Your task to perform on an android device: delete a single message in the gmail app Image 0: 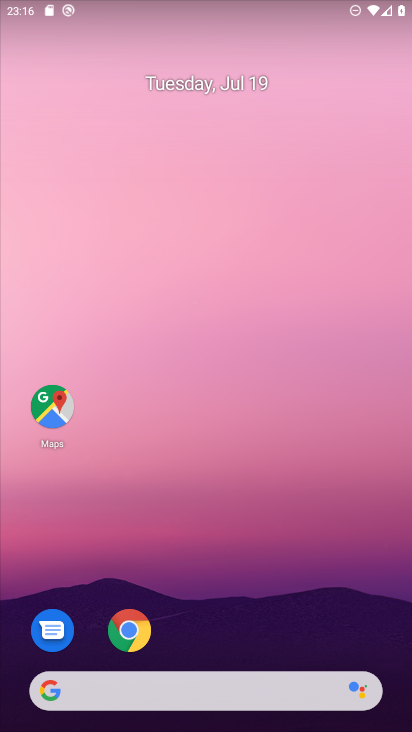
Step 0: drag from (212, 617) to (165, 128)
Your task to perform on an android device: delete a single message in the gmail app Image 1: 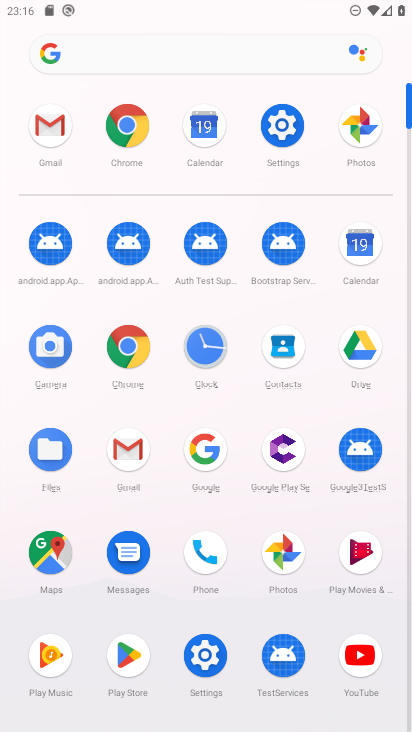
Step 1: click (64, 121)
Your task to perform on an android device: delete a single message in the gmail app Image 2: 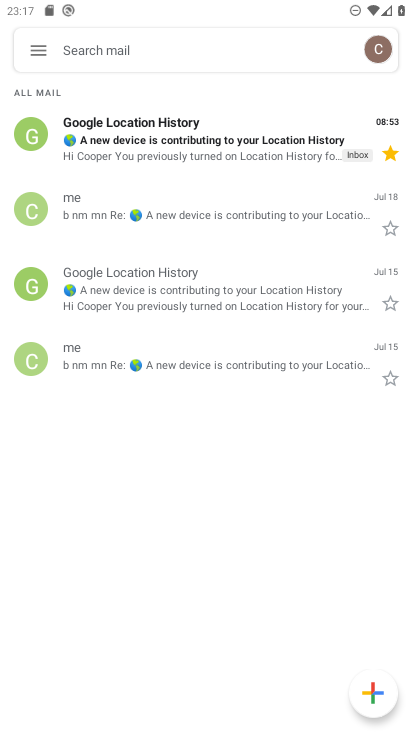
Step 2: click (252, 150)
Your task to perform on an android device: delete a single message in the gmail app Image 3: 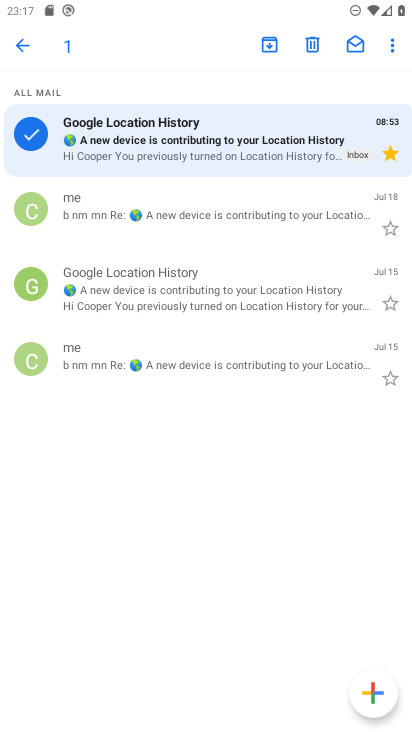
Step 3: click (301, 51)
Your task to perform on an android device: delete a single message in the gmail app Image 4: 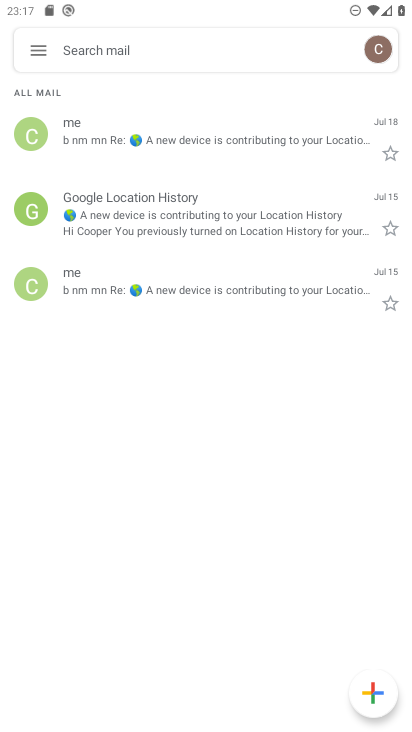
Step 4: task complete